Your task to perform on an android device: open sync settings in chrome Image 0: 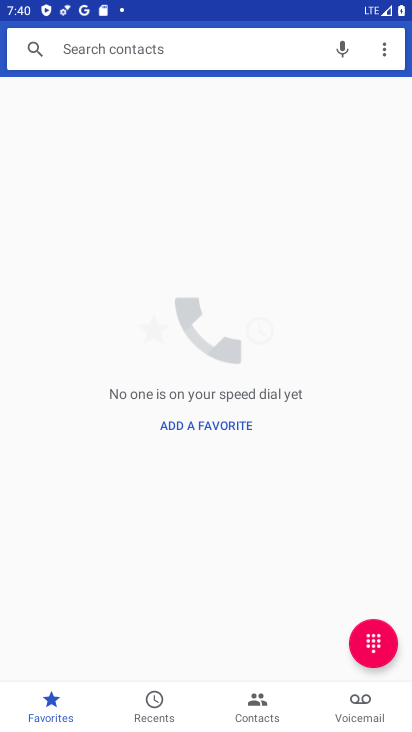
Step 0: press home button
Your task to perform on an android device: open sync settings in chrome Image 1: 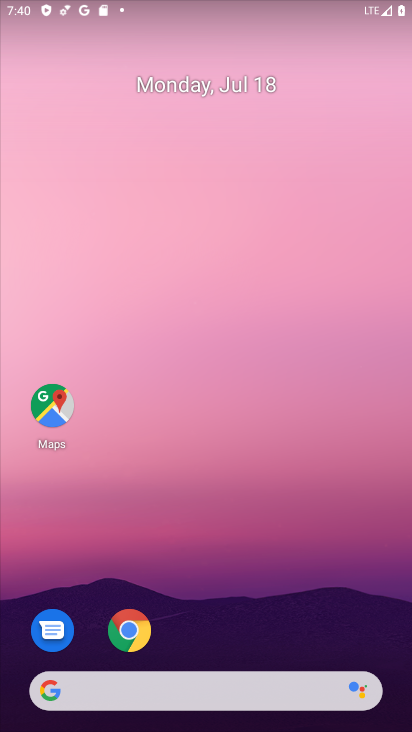
Step 1: drag from (239, 700) to (357, 88)
Your task to perform on an android device: open sync settings in chrome Image 2: 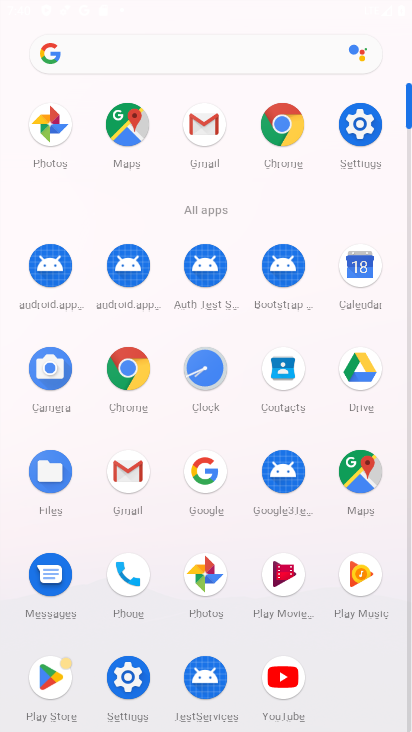
Step 2: click (275, 144)
Your task to perform on an android device: open sync settings in chrome Image 3: 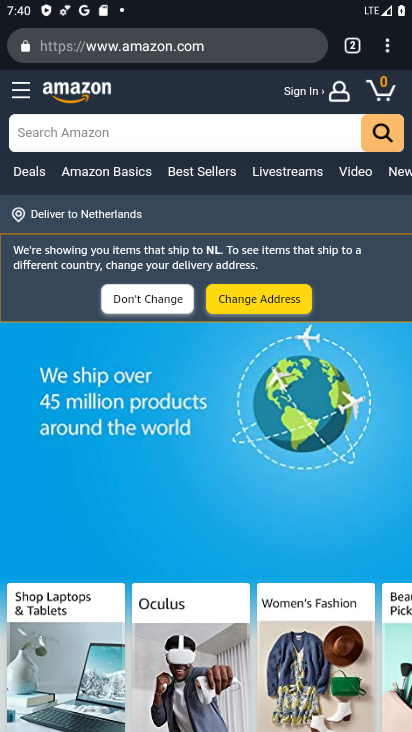
Step 3: click (385, 47)
Your task to perform on an android device: open sync settings in chrome Image 4: 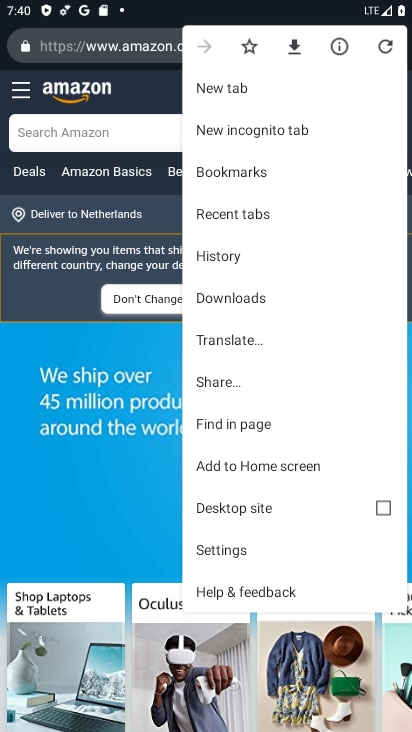
Step 4: click (240, 546)
Your task to perform on an android device: open sync settings in chrome Image 5: 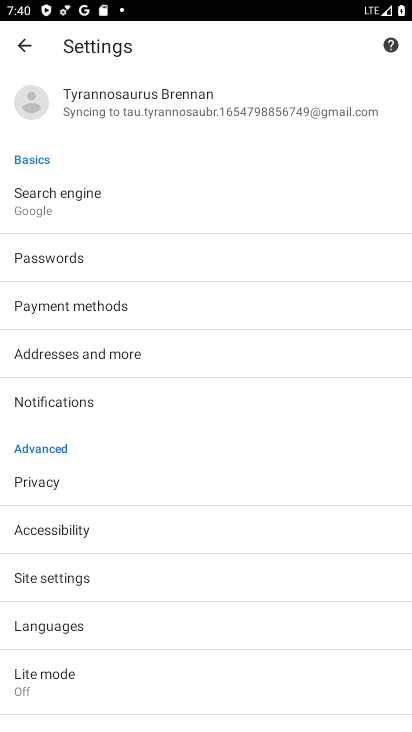
Step 5: click (232, 107)
Your task to perform on an android device: open sync settings in chrome Image 6: 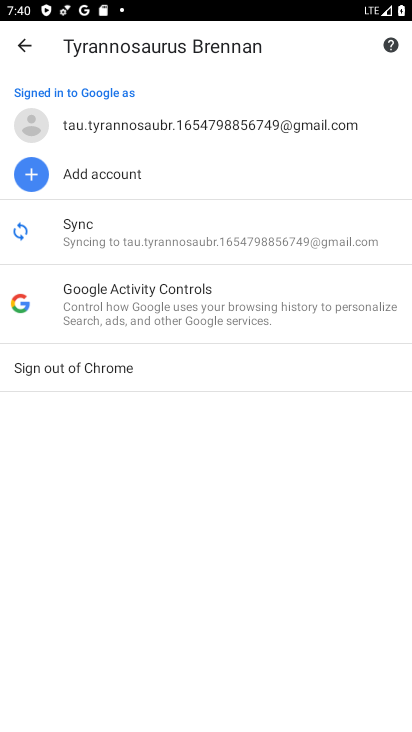
Step 6: click (169, 224)
Your task to perform on an android device: open sync settings in chrome Image 7: 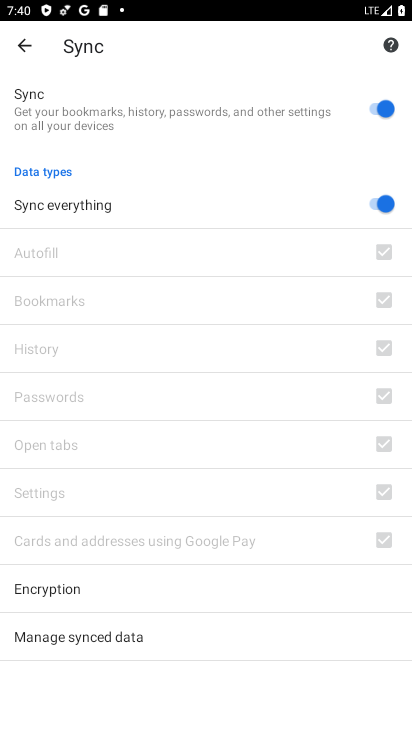
Step 7: task complete